Your task to perform on an android device: Open Youtube and go to the subscriptions tab Image 0: 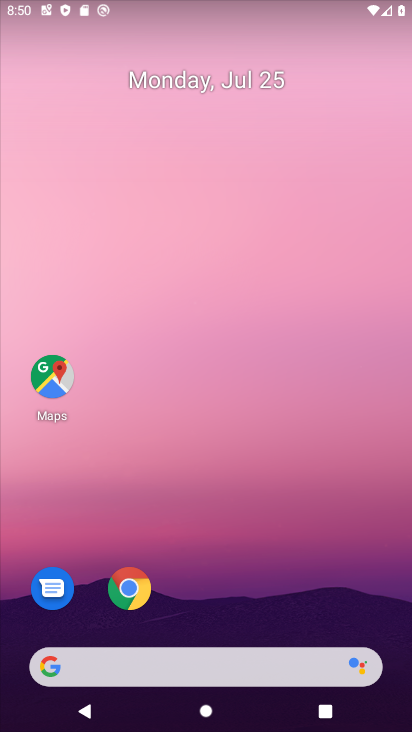
Step 0: drag from (206, 563) to (267, 132)
Your task to perform on an android device: Open Youtube and go to the subscriptions tab Image 1: 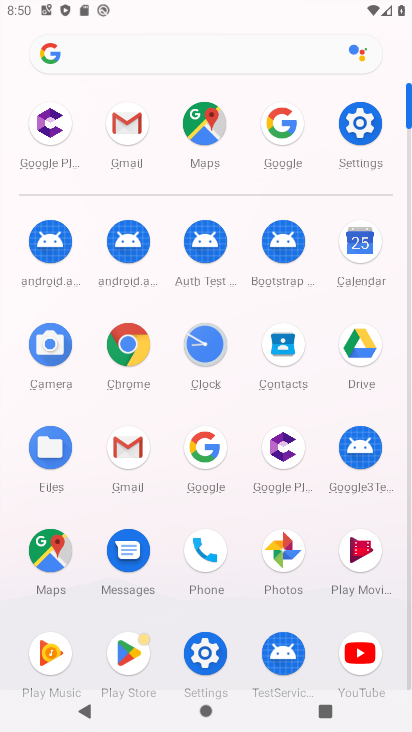
Step 1: click (352, 667)
Your task to perform on an android device: Open Youtube and go to the subscriptions tab Image 2: 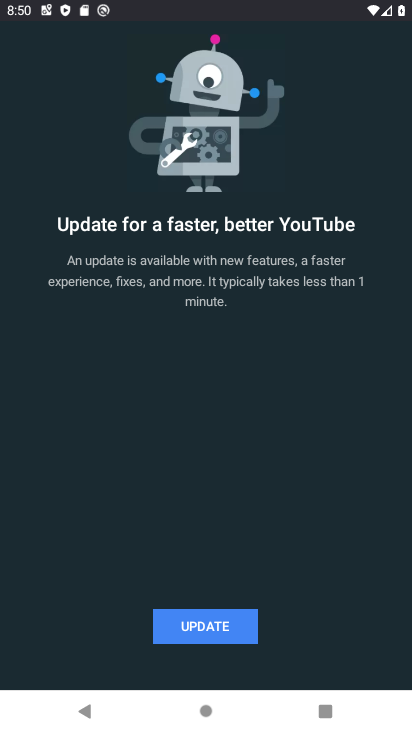
Step 2: click (221, 619)
Your task to perform on an android device: Open Youtube and go to the subscriptions tab Image 3: 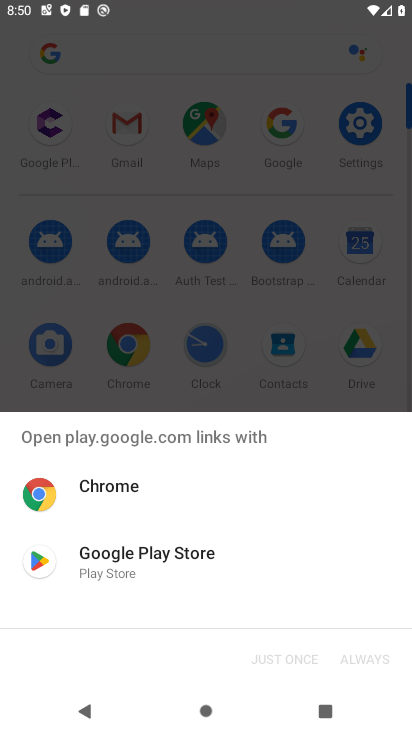
Step 3: click (183, 591)
Your task to perform on an android device: Open Youtube and go to the subscriptions tab Image 4: 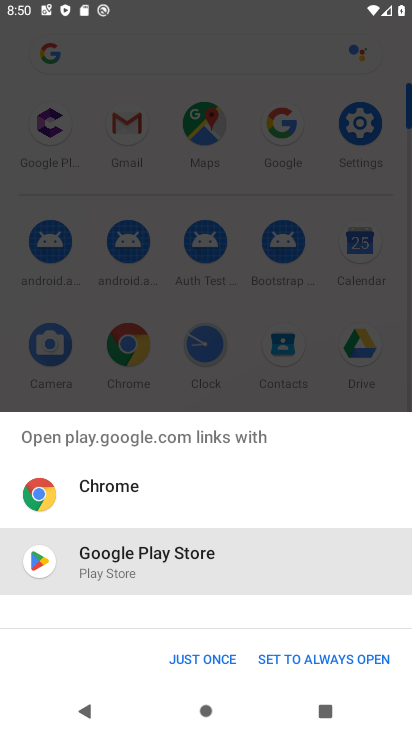
Step 4: click (230, 657)
Your task to perform on an android device: Open Youtube and go to the subscriptions tab Image 5: 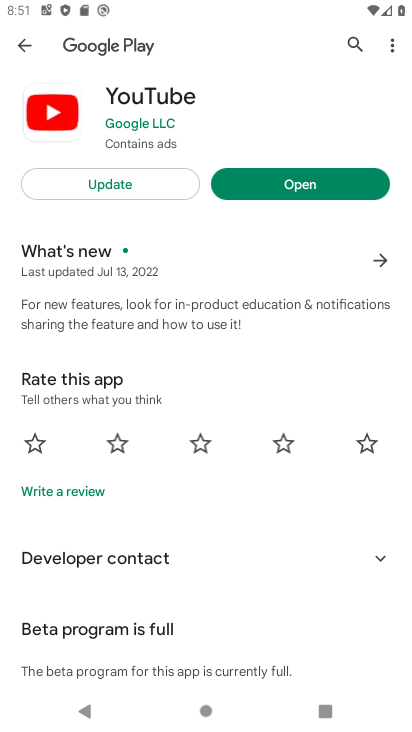
Step 5: click (113, 188)
Your task to perform on an android device: Open Youtube and go to the subscriptions tab Image 6: 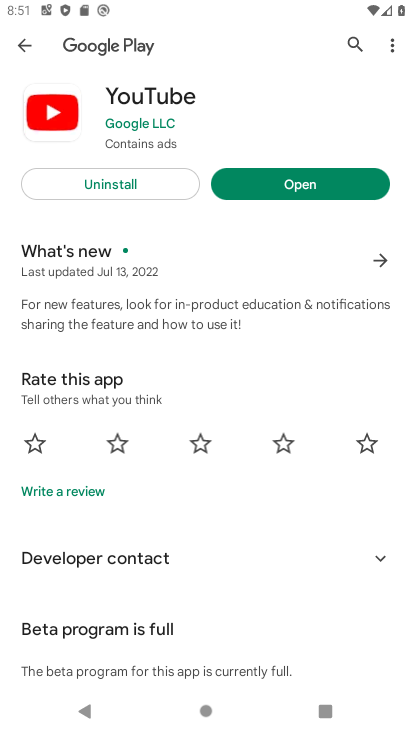
Step 6: click (268, 177)
Your task to perform on an android device: Open Youtube and go to the subscriptions tab Image 7: 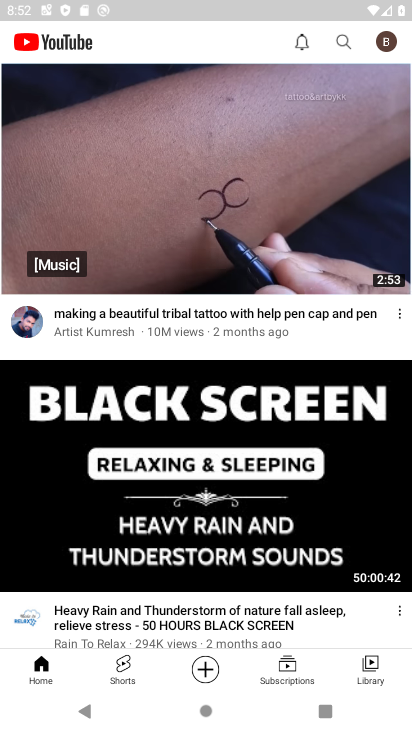
Step 7: click (288, 673)
Your task to perform on an android device: Open Youtube and go to the subscriptions tab Image 8: 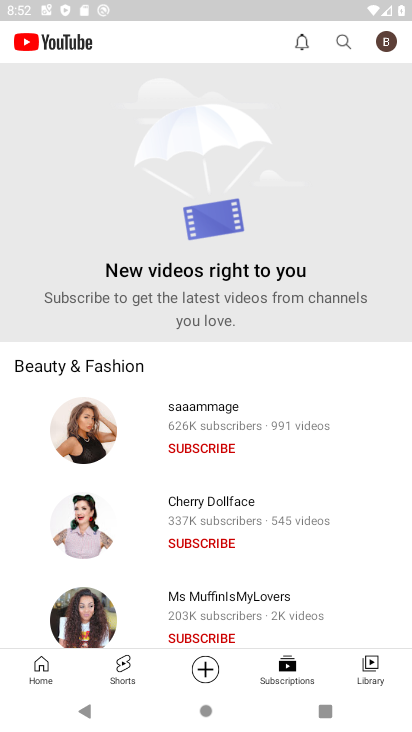
Step 8: task complete